Your task to perform on an android device: Go to internet settings Image 0: 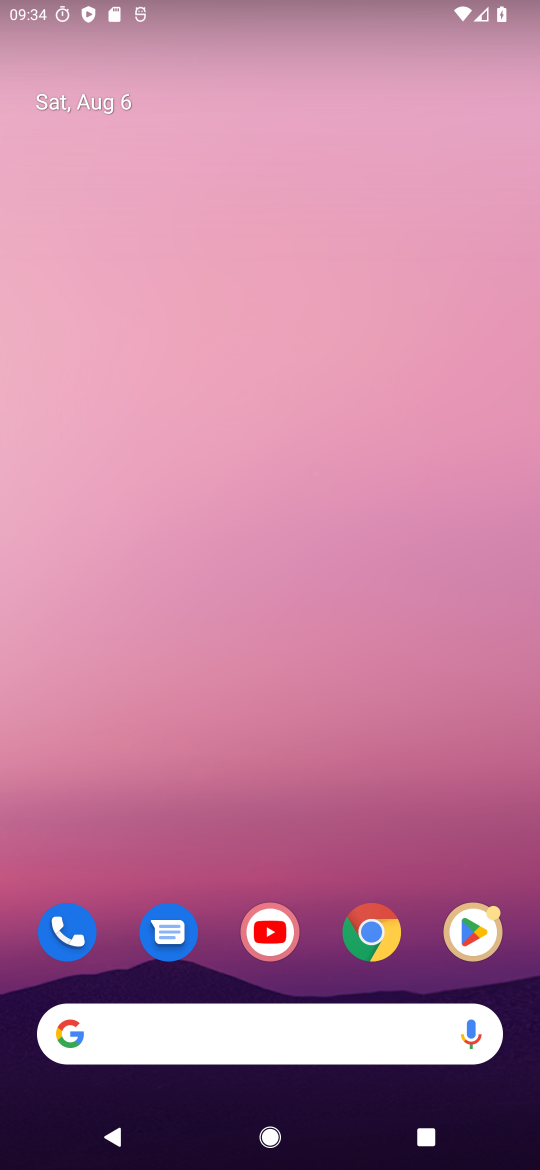
Step 0: drag from (276, 853) to (454, 89)
Your task to perform on an android device: Go to internet settings Image 1: 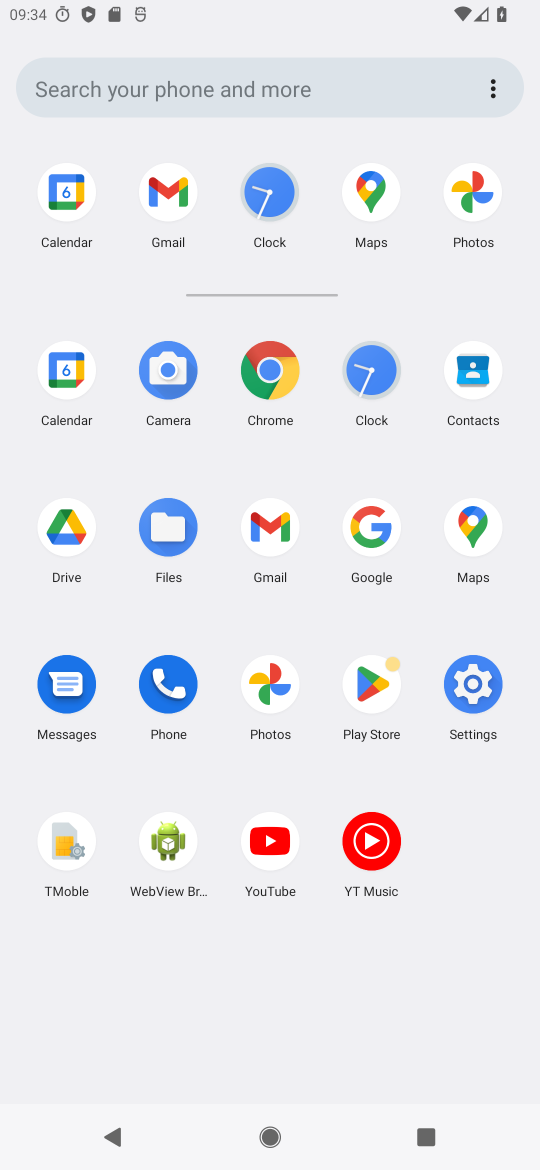
Step 1: click (478, 693)
Your task to perform on an android device: Go to internet settings Image 2: 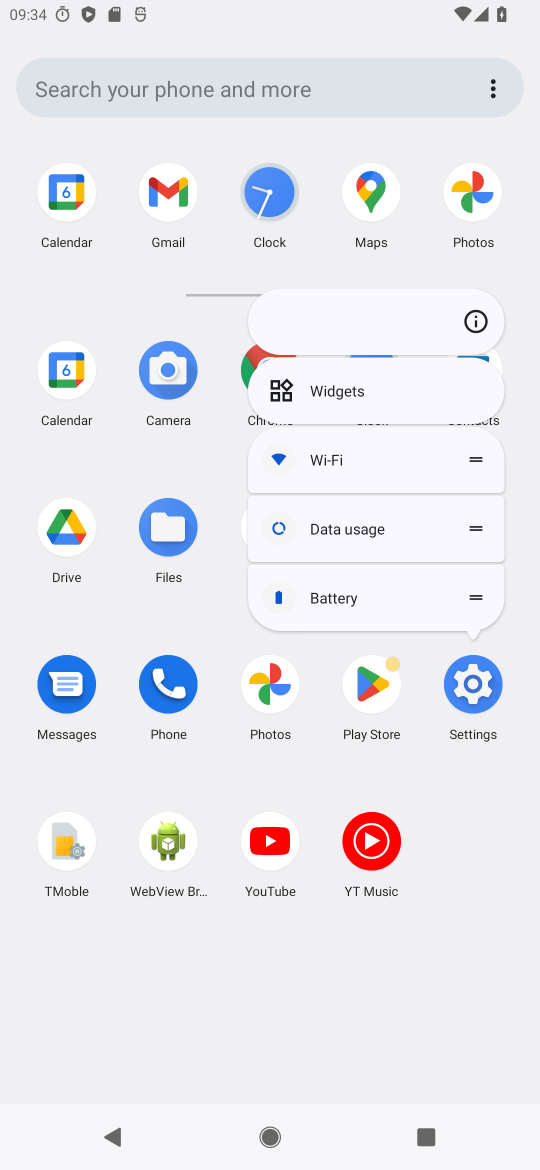
Step 2: click (471, 686)
Your task to perform on an android device: Go to internet settings Image 3: 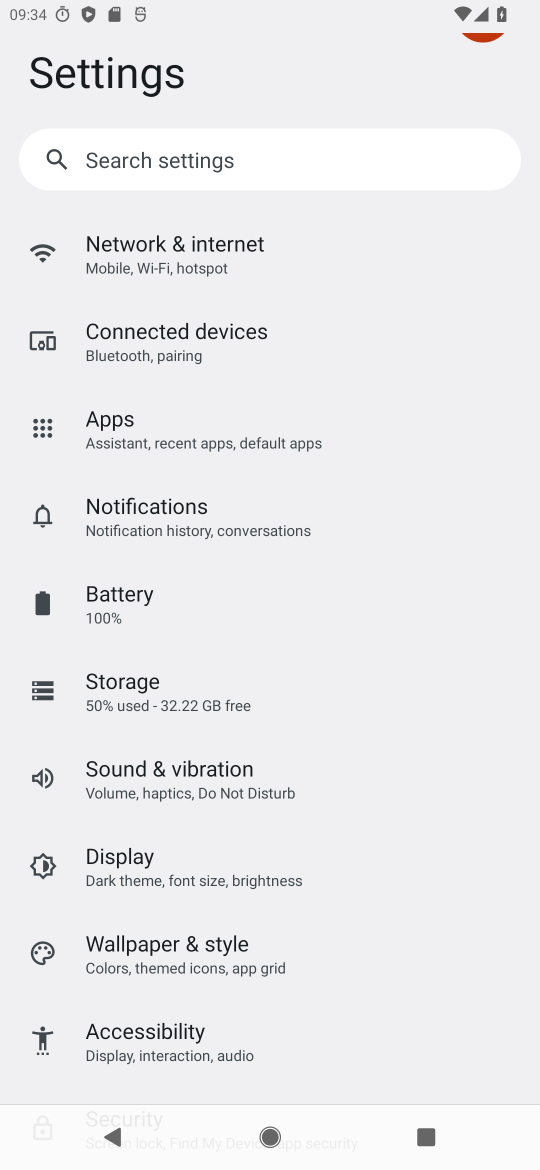
Step 3: click (217, 261)
Your task to perform on an android device: Go to internet settings Image 4: 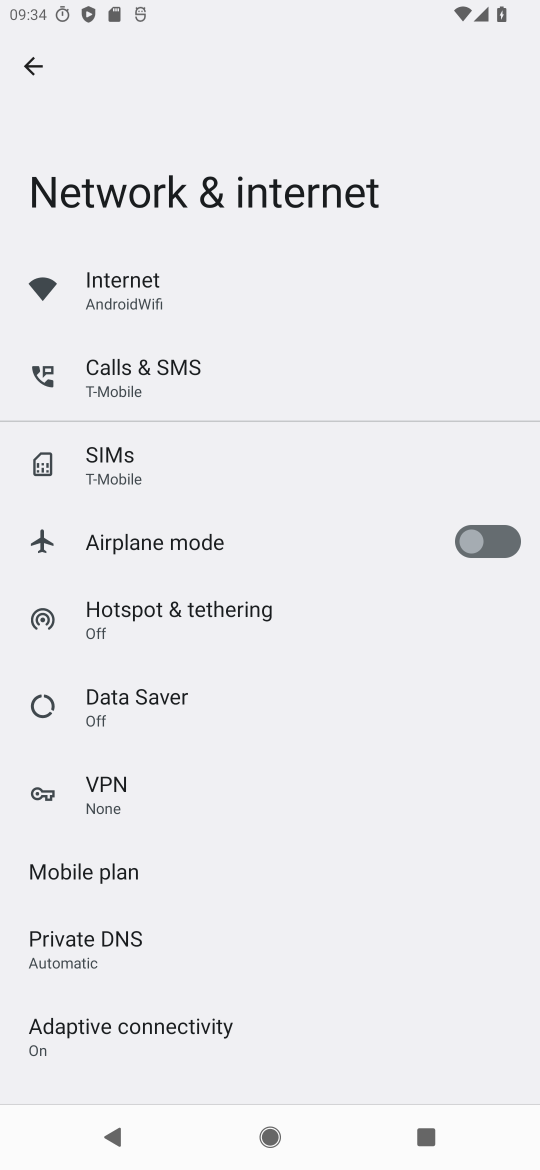
Step 4: click (158, 278)
Your task to perform on an android device: Go to internet settings Image 5: 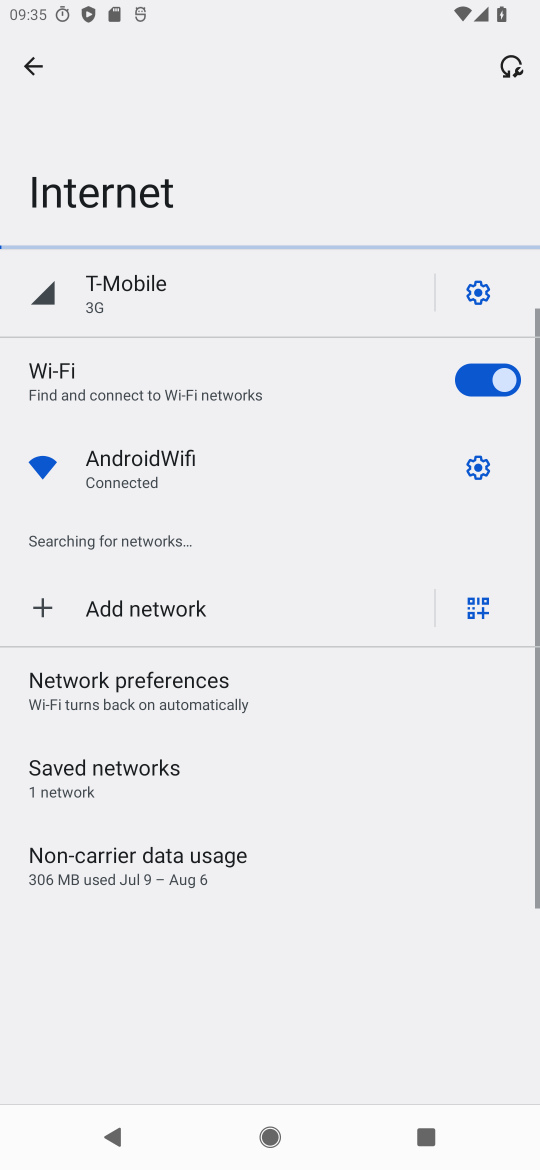
Step 5: task complete